Your task to perform on an android device: delete the emails in spam in the gmail app Image 0: 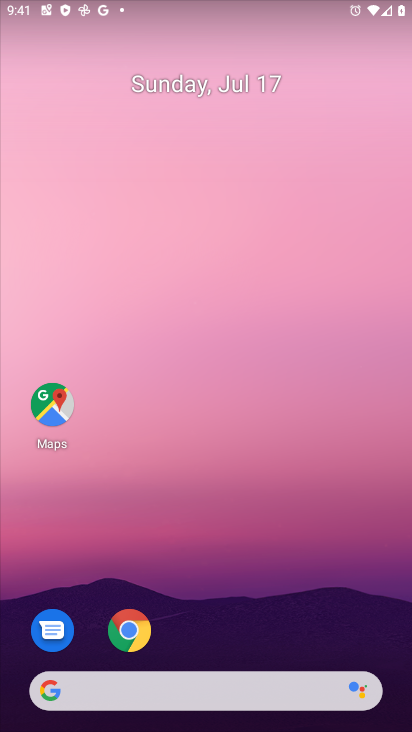
Step 0: drag from (207, 508) to (163, 153)
Your task to perform on an android device: delete the emails in spam in the gmail app Image 1: 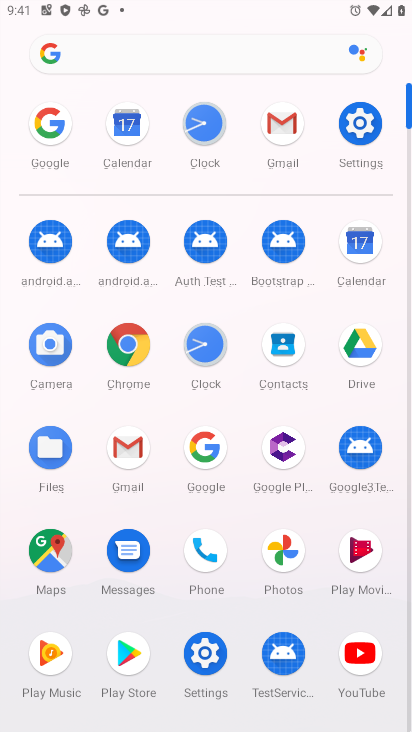
Step 1: click (281, 126)
Your task to perform on an android device: delete the emails in spam in the gmail app Image 2: 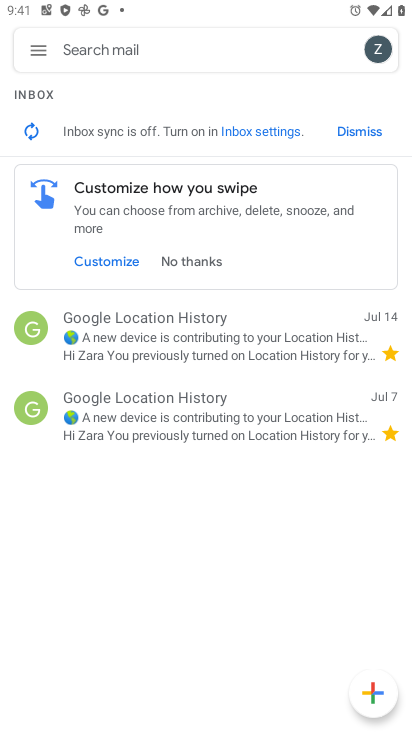
Step 2: click (39, 50)
Your task to perform on an android device: delete the emails in spam in the gmail app Image 3: 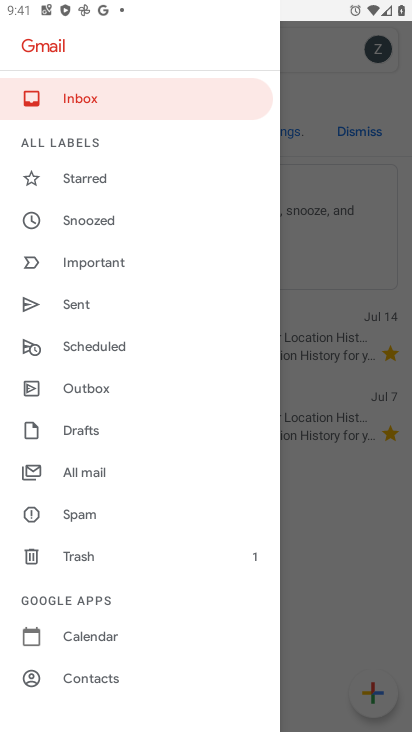
Step 3: click (82, 518)
Your task to perform on an android device: delete the emails in spam in the gmail app Image 4: 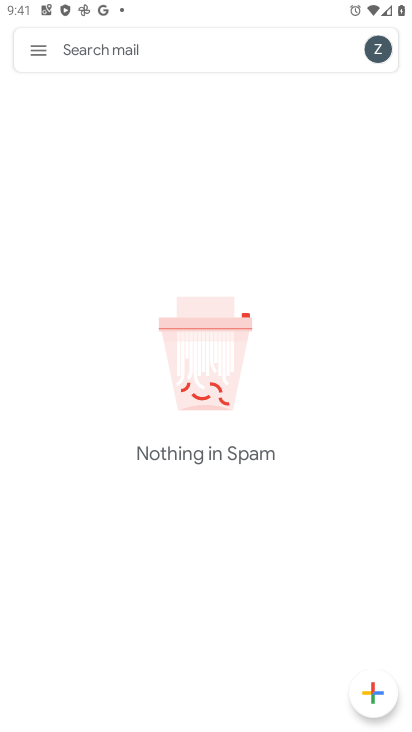
Step 4: task complete